Your task to perform on an android device: Search for vegetarian restaurants on Maps Image 0: 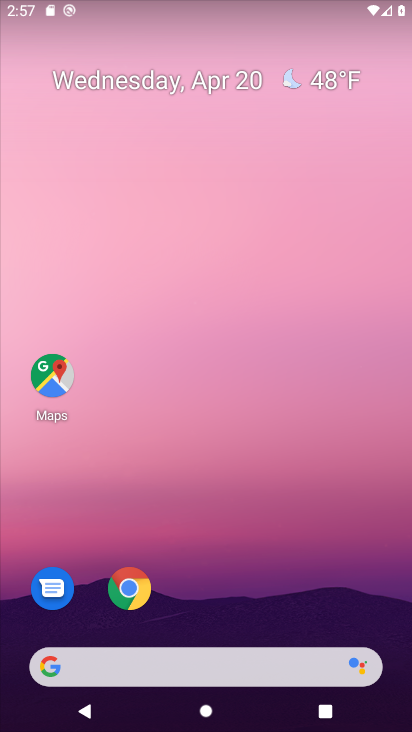
Step 0: drag from (316, 577) to (325, 120)
Your task to perform on an android device: Search for vegetarian restaurants on Maps Image 1: 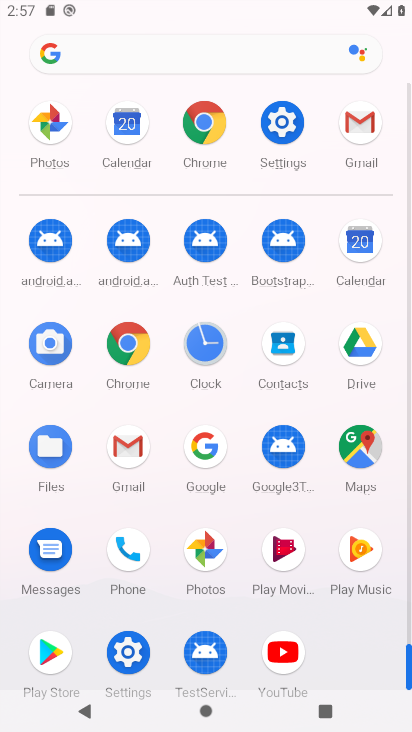
Step 1: click (358, 456)
Your task to perform on an android device: Search for vegetarian restaurants on Maps Image 2: 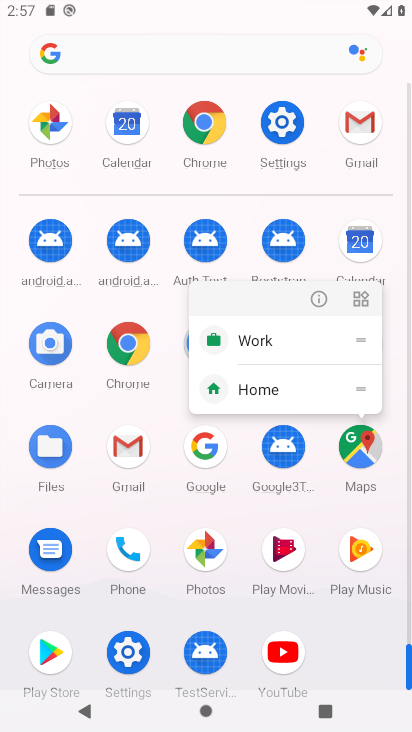
Step 2: click (377, 458)
Your task to perform on an android device: Search for vegetarian restaurants on Maps Image 3: 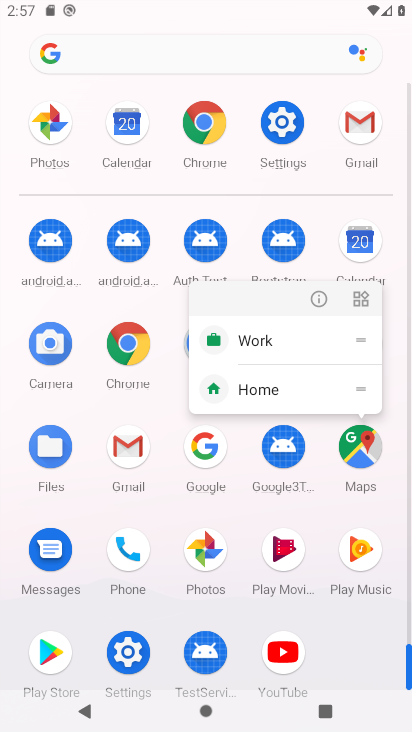
Step 3: click (352, 449)
Your task to perform on an android device: Search for vegetarian restaurants on Maps Image 4: 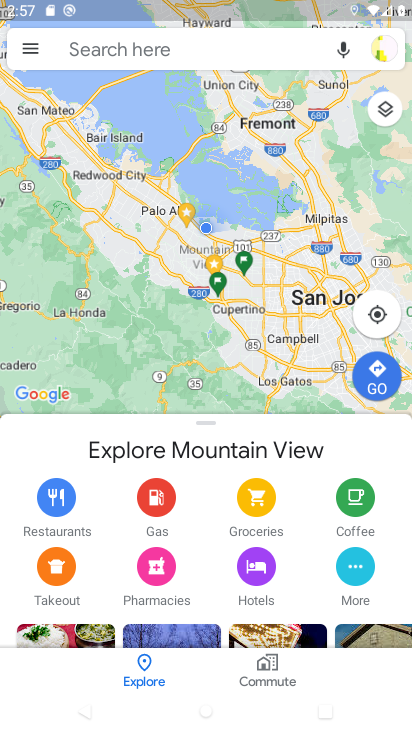
Step 4: click (244, 49)
Your task to perform on an android device: Search for vegetarian restaurants on Maps Image 5: 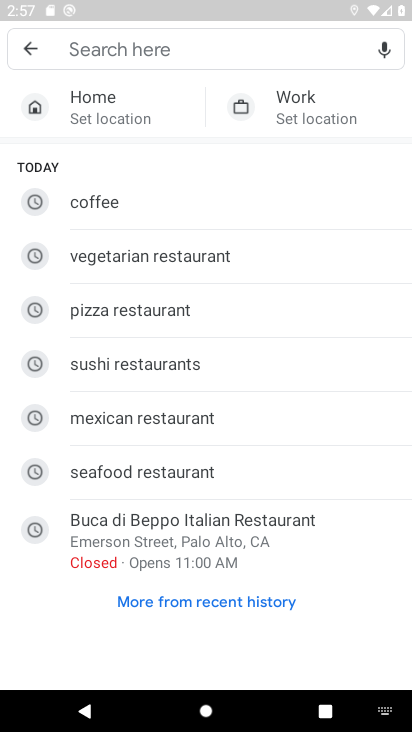
Step 5: type "vegetrain restaurants"
Your task to perform on an android device: Search for vegetarian restaurants on Maps Image 6: 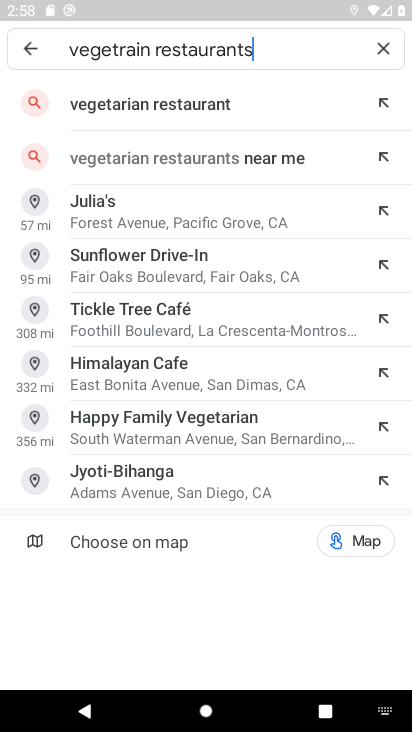
Step 6: click (125, 105)
Your task to perform on an android device: Search for vegetarian restaurants on Maps Image 7: 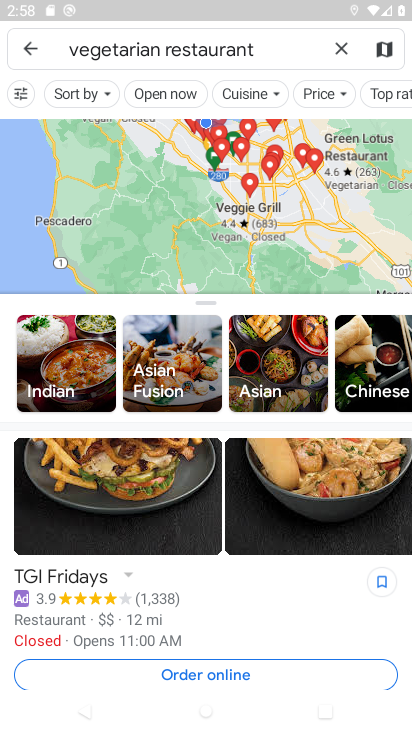
Step 7: task complete